Your task to perform on an android device: visit the assistant section in the google photos Image 0: 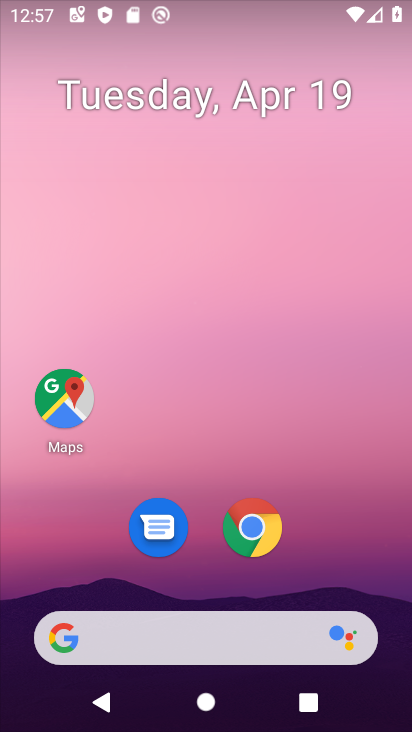
Step 0: drag from (357, 534) to (347, 99)
Your task to perform on an android device: visit the assistant section in the google photos Image 1: 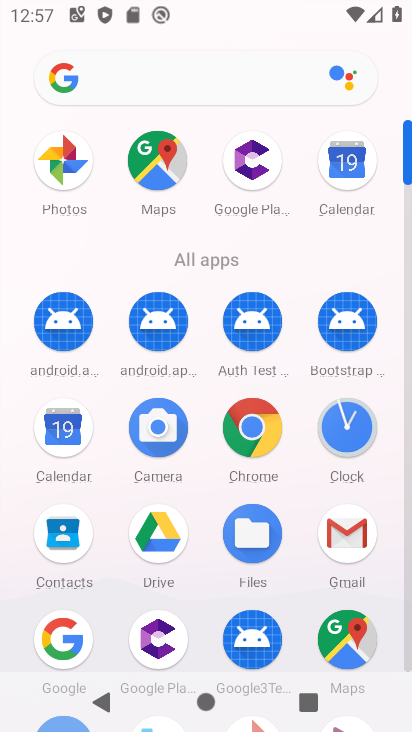
Step 1: drag from (299, 270) to (296, 20)
Your task to perform on an android device: visit the assistant section in the google photos Image 2: 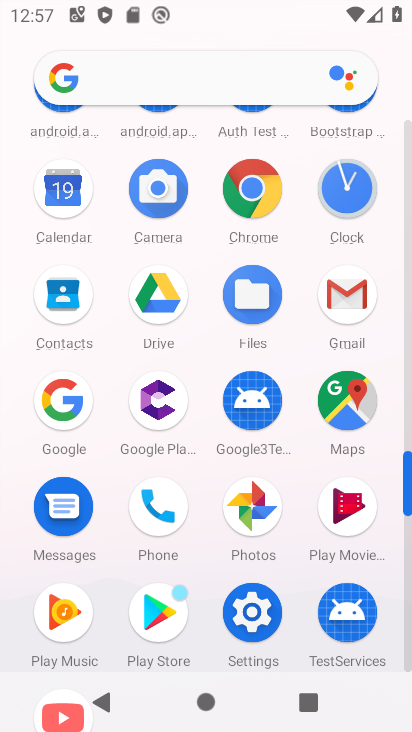
Step 2: click (252, 505)
Your task to perform on an android device: visit the assistant section in the google photos Image 3: 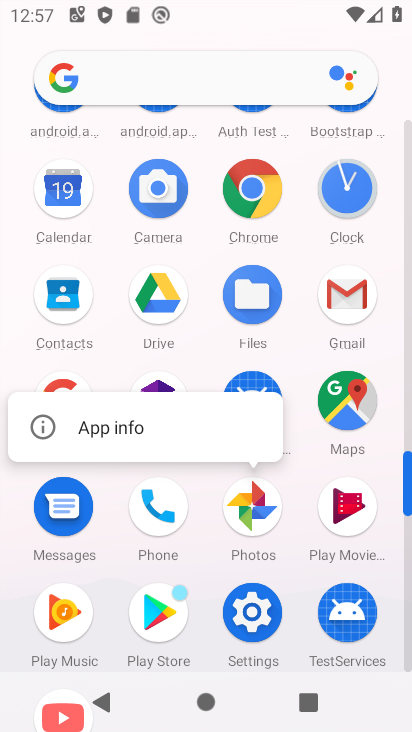
Step 3: click (260, 511)
Your task to perform on an android device: visit the assistant section in the google photos Image 4: 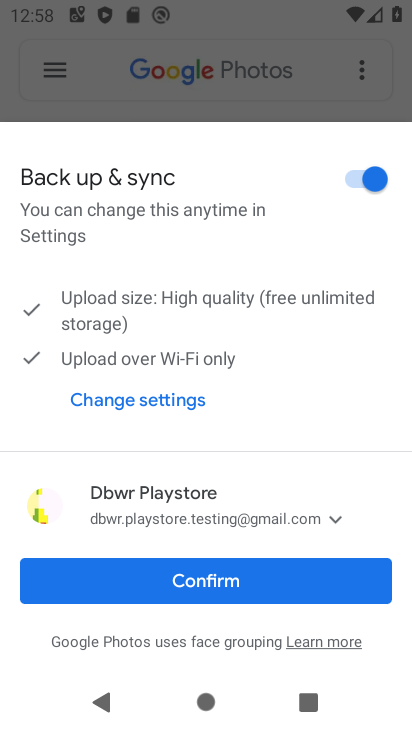
Step 4: click (257, 589)
Your task to perform on an android device: visit the assistant section in the google photos Image 5: 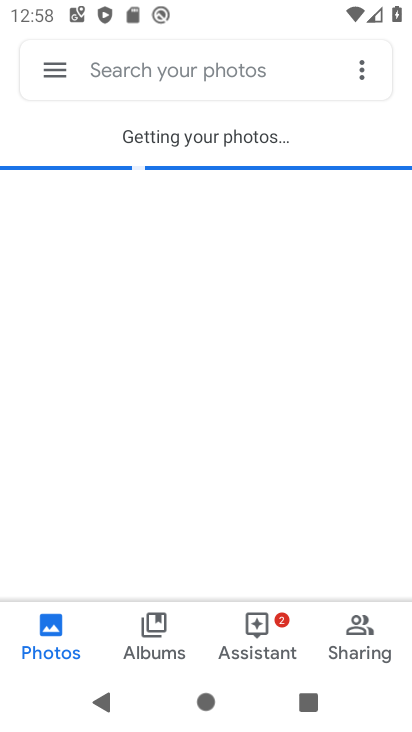
Step 5: click (266, 632)
Your task to perform on an android device: visit the assistant section in the google photos Image 6: 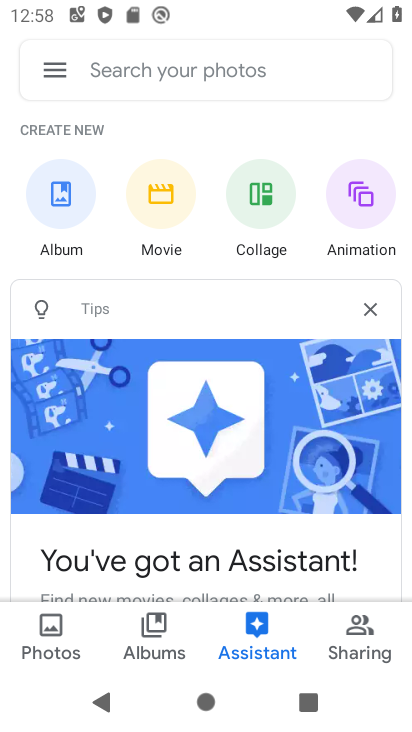
Step 6: task complete